Your task to perform on an android device: Open display settings Image 0: 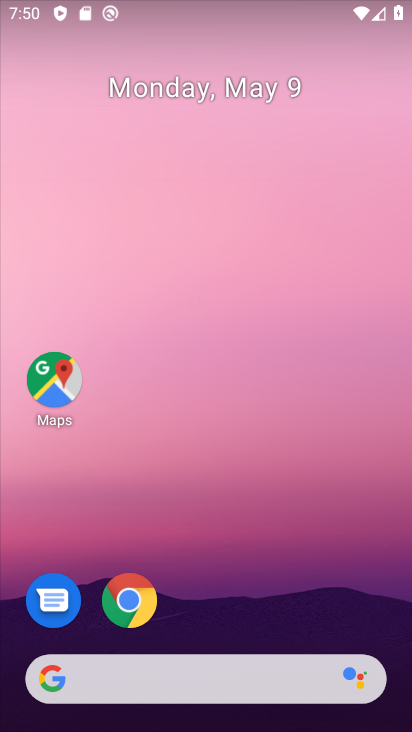
Step 0: drag from (246, 575) to (238, 10)
Your task to perform on an android device: Open display settings Image 1: 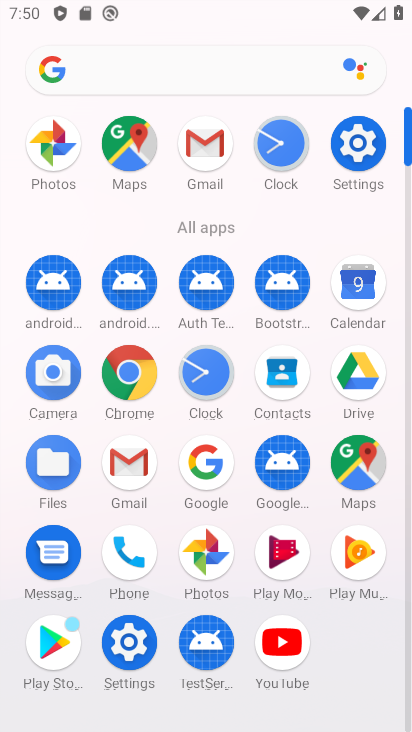
Step 1: click (126, 638)
Your task to perform on an android device: Open display settings Image 2: 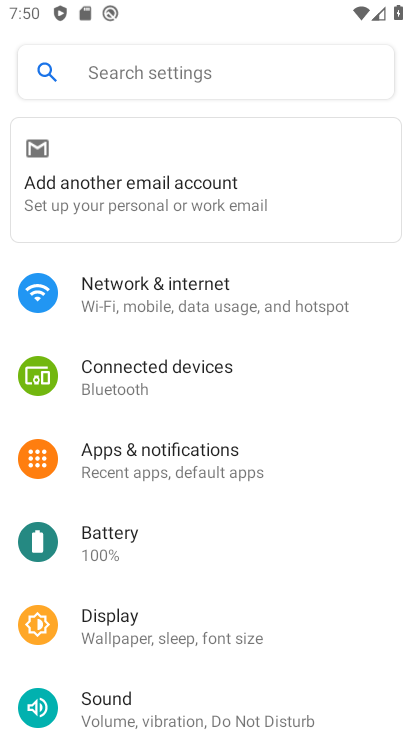
Step 2: click (176, 625)
Your task to perform on an android device: Open display settings Image 3: 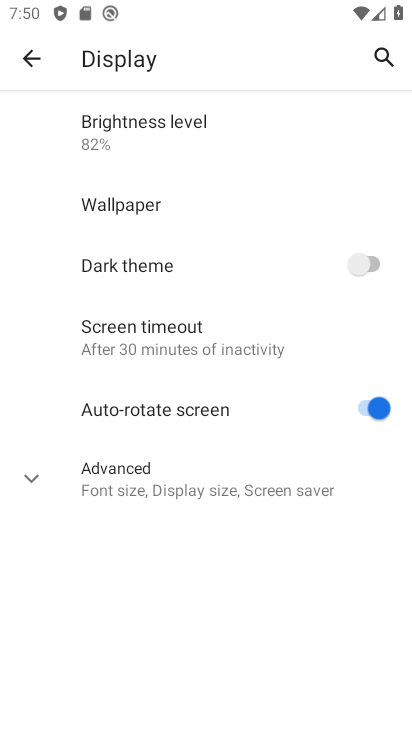
Step 3: click (45, 477)
Your task to perform on an android device: Open display settings Image 4: 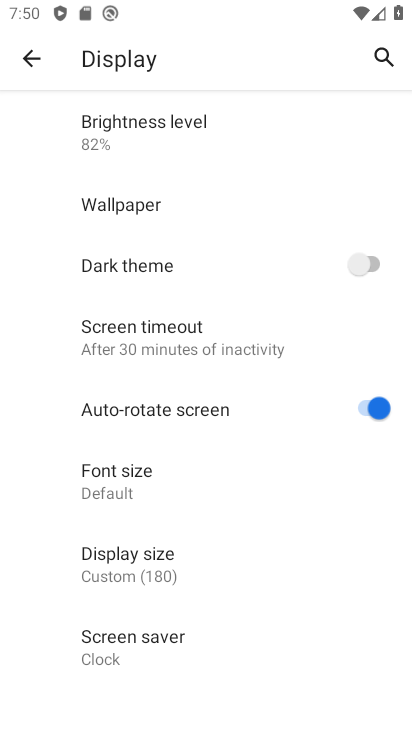
Step 4: task complete